Your task to perform on an android device: Open calendar and show me the third week of next month Image 0: 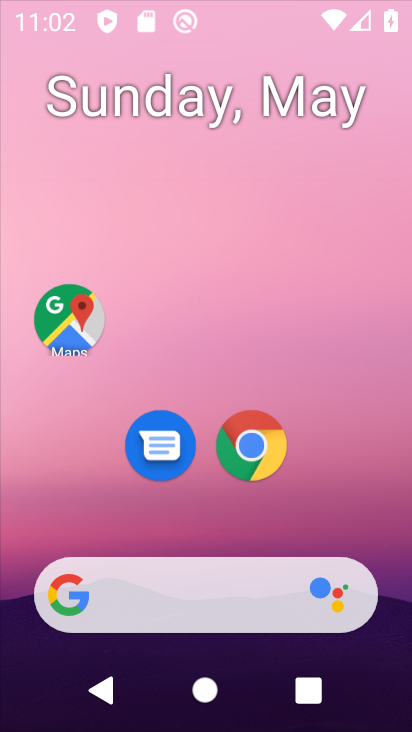
Step 0: press home button
Your task to perform on an android device: Open calendar and show me the third week of next month Image 1: 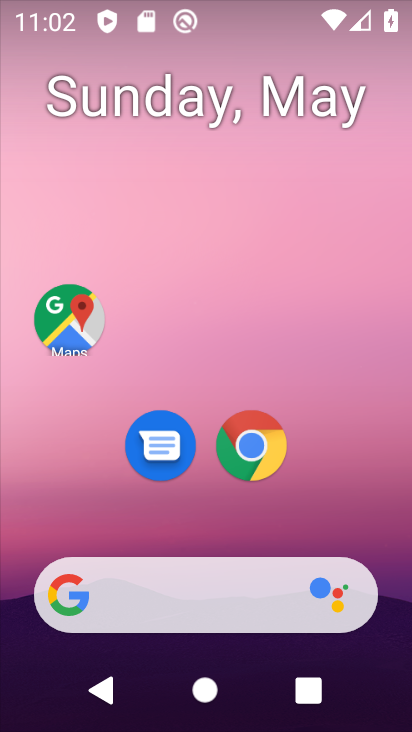
Step 1: press home button
Your task to perform on an android device: Open calendar and show me the third week of next month Image 2: 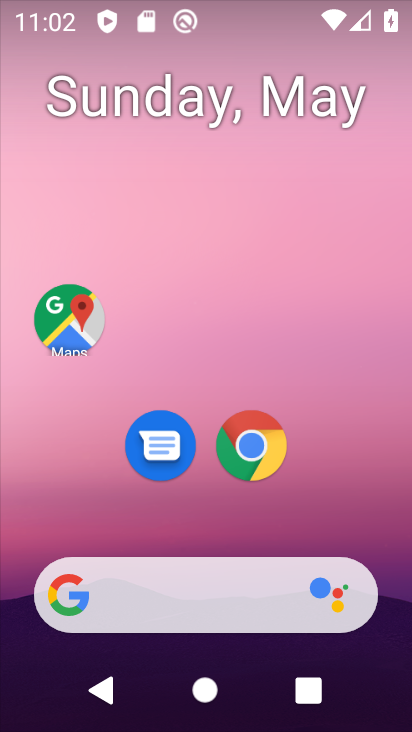
Step 2: drag from (315, 453) to (180, 0)
Your task to perform on an android device: Open calendar and show me the third week of next month Image 3: 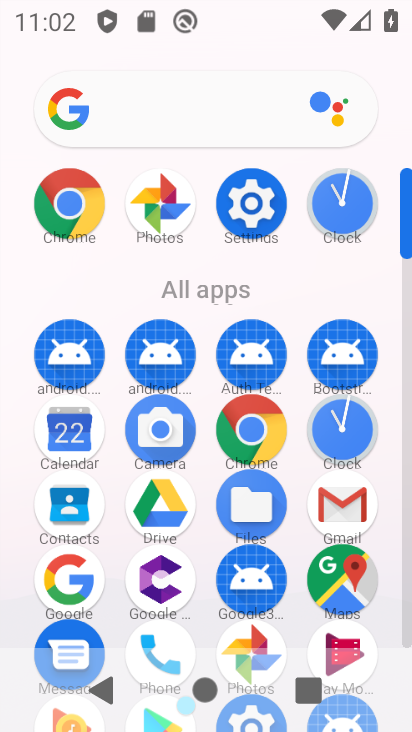
Step 3: click (76, 437)
Your task to perform on an android device: Open calendar and show me the third week of next month Image 4: 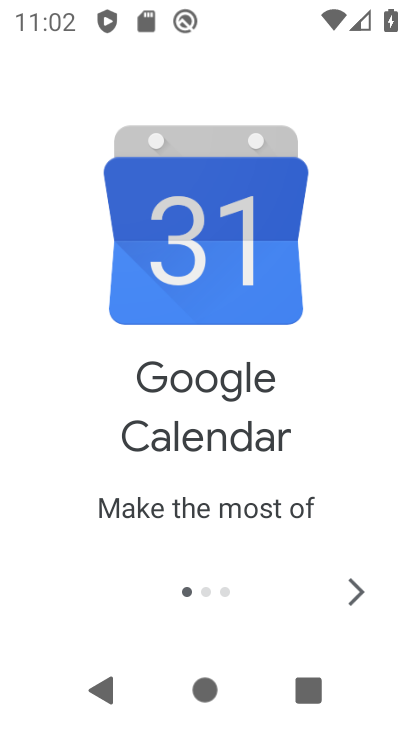
Step 4: click (362, 570)
Your task to perform on an android device: Open calendar and show me the third week of next month Image 5: 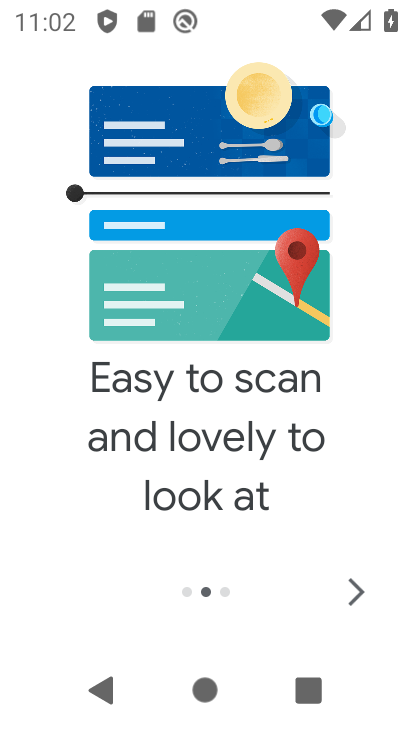
Step 5: click (357, 584)
Your task to perform on an android device: Open calendar and show me the third week of next month Image 6: 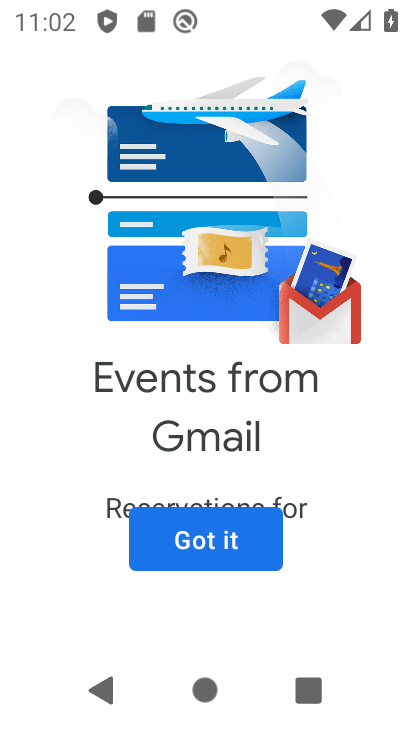
Step 6: click (221, 525)
Your task to perform on an android device: Open calendar and show me the third week of next month Image 7: 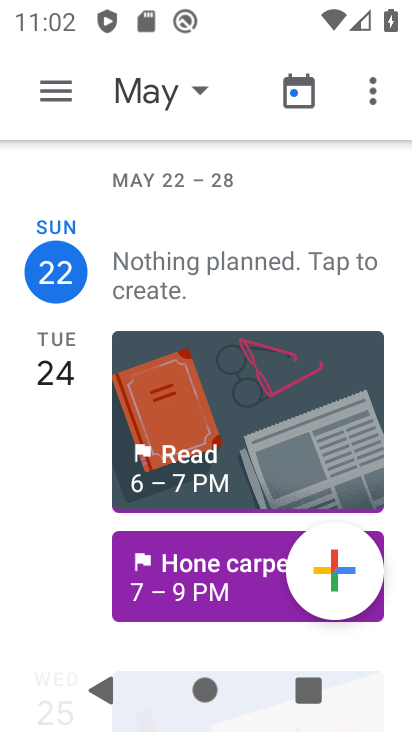
Step 7: click (67, 90)
Your task to perform on an android device: Open calendar and show me the third week of next month Image 8: 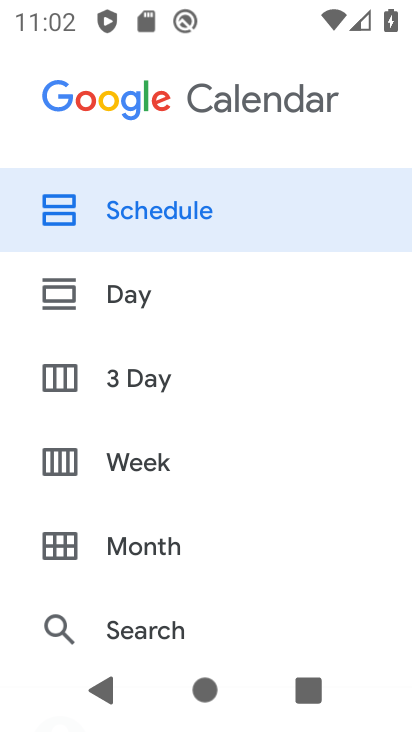
Step 8: click (163, 442)
Your task to perform on an android device: Open calendar and show me the third week of next month Image 9: 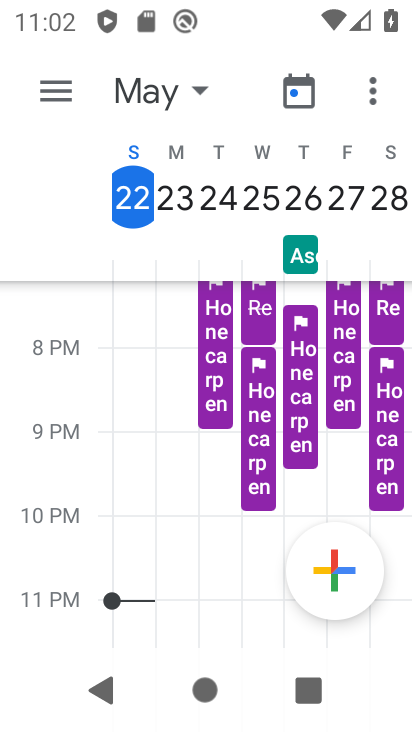
Step 9: click (191, 96)
Your task to perform on an android device: Open calendar and show me the third week of next month Image 10: 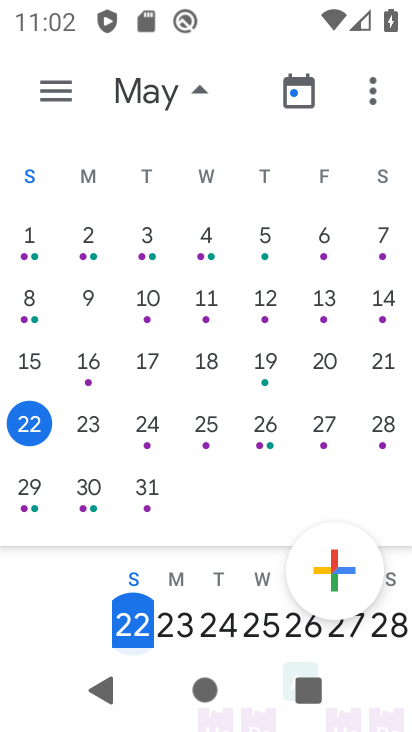
Step 10: drag from (362, 324) to (0, 321)
Your task to perform on an android device: Open calendar and show me the third week of next month Image 11: 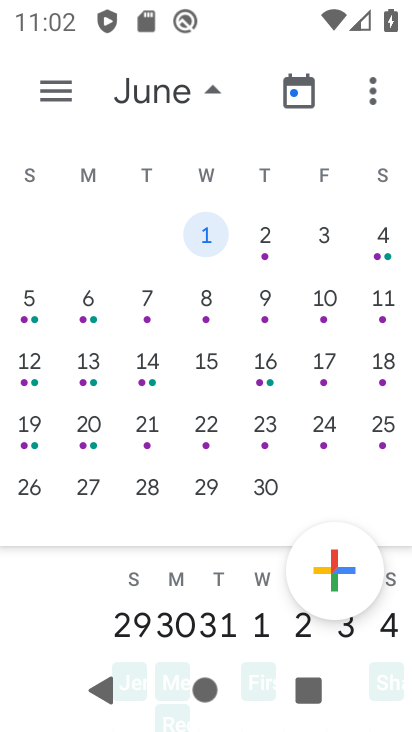
Step 11: click (41, 357)
Your task to perform on an android device: Open calendar and show me the third week of next month Image 12: 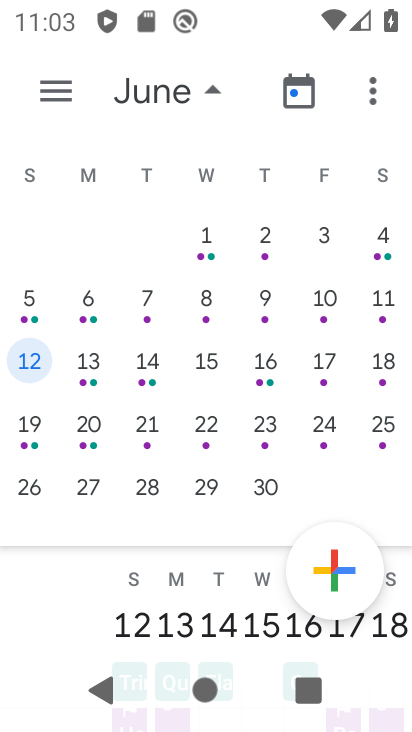
Step 12: task complete